Your task to perform on an android device: toggle notification dots Image 0: 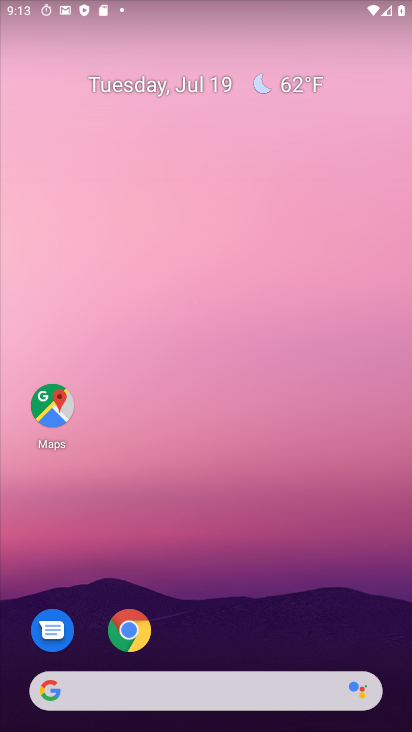
Step 0: drag from (72, 488) to (141, 190)
Your task to perform on an android device: toggle notification dots Image 1: 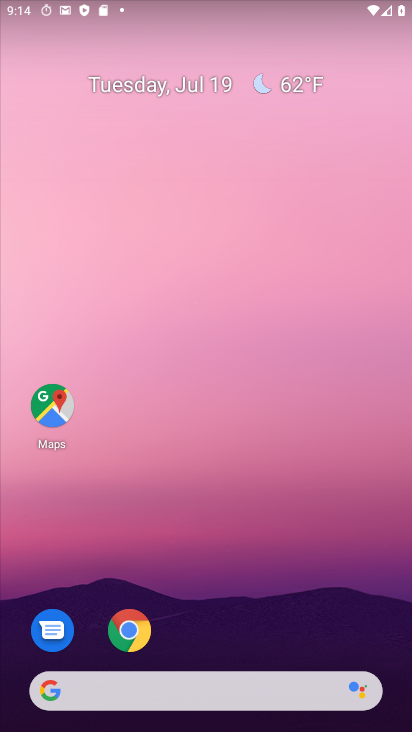
Step 1: drag from (28, 685) to (284, 209)
Your task to perform on an android device: toggle notification dots Image 2: 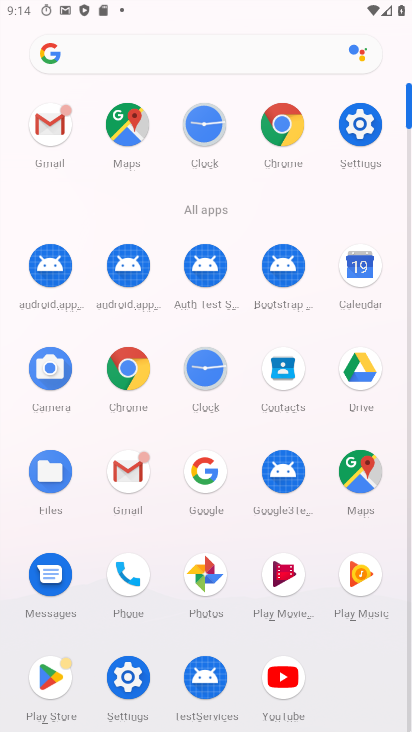
Step 2: click (126, 692)
Your task to perform on an android device: toggle notification dots Image 3: 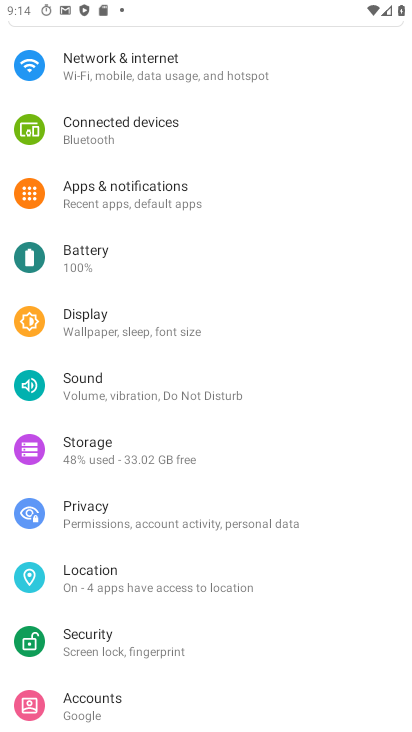
Step 3: click (111, 197)
Your task to perform on an android device: toggle notification dots Image 4: 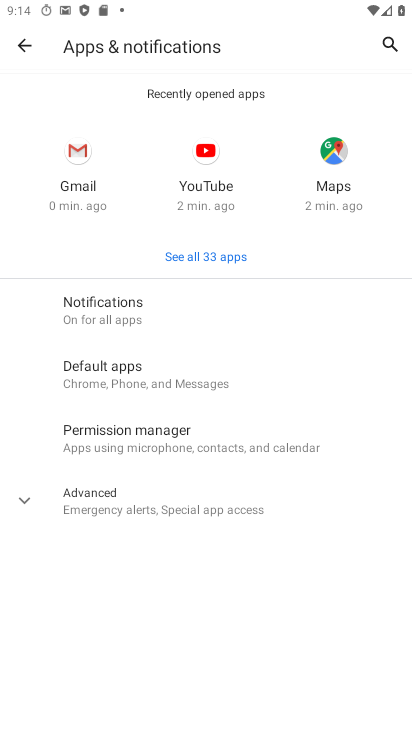
Step 4: click (124, 507)
Your task to perform on an android device: toggle notification dots Image 5: 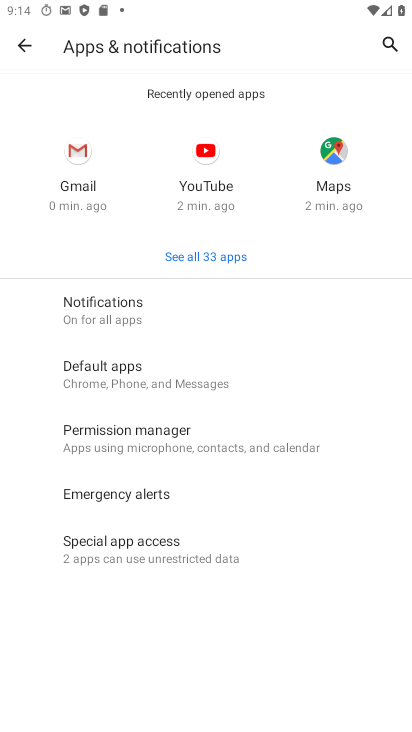
Step 5: click (121, 547)
Your task to perform on an android device: toggle notification dots Image 6: 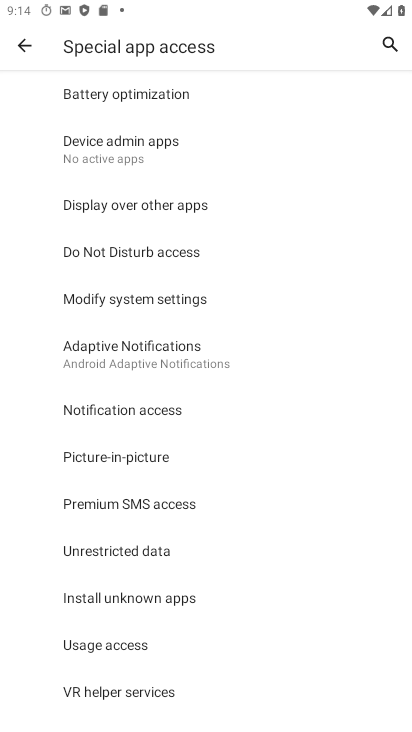
Step 6: click (18, 43)
Your task to perform on an android device: toggle notification dots Image 7: 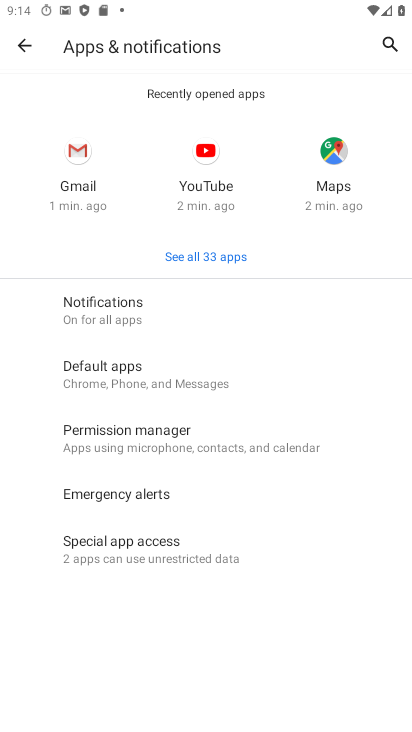
Step 7: click (110, 324)
Your task to perform on an android device: toggle notification dots Image 8: 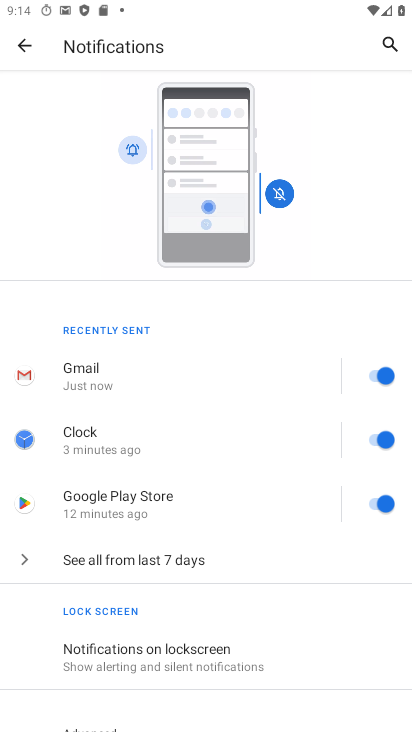
Step 8: drag from (250, 657) to (305, 277)
Your task to perform on an android device: toggle notification dots Image 9: 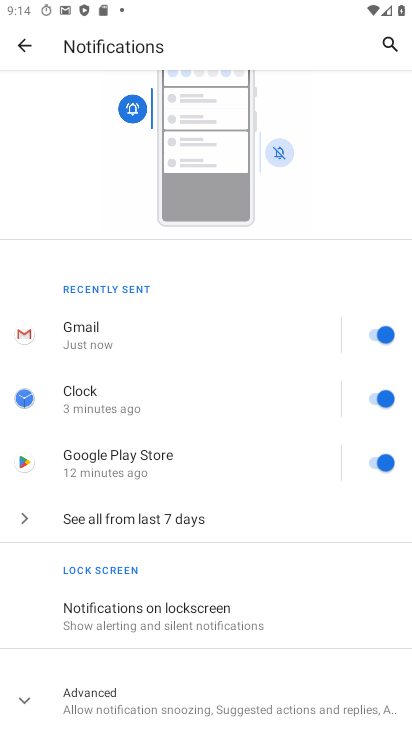
Step 9: click (108, 697)
Your task to perform on an android device: toggle notification dots Image 10: 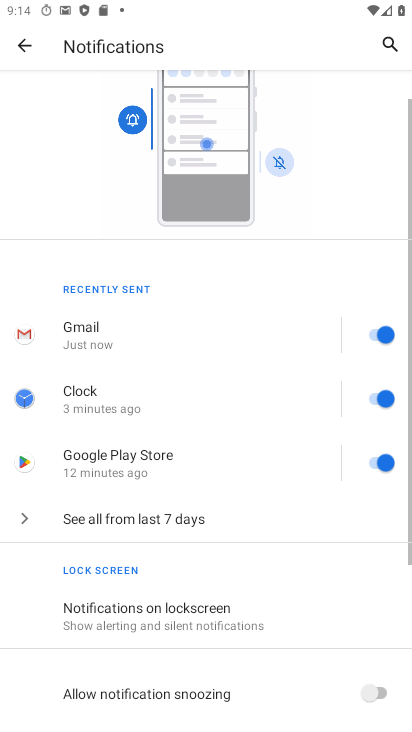
Step 10: task complete